Your task to perform on an android device: move an email to a new category in the gmail app Image 0: 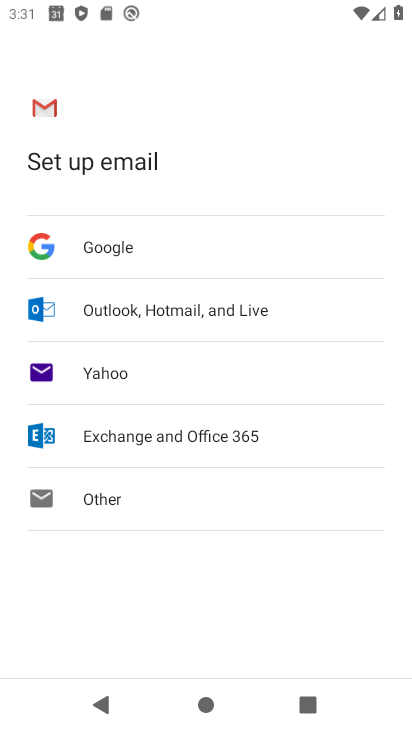
Step 0: press back button
Your task to perform on an android device: move an email to a new category in the gmail app Image 1: 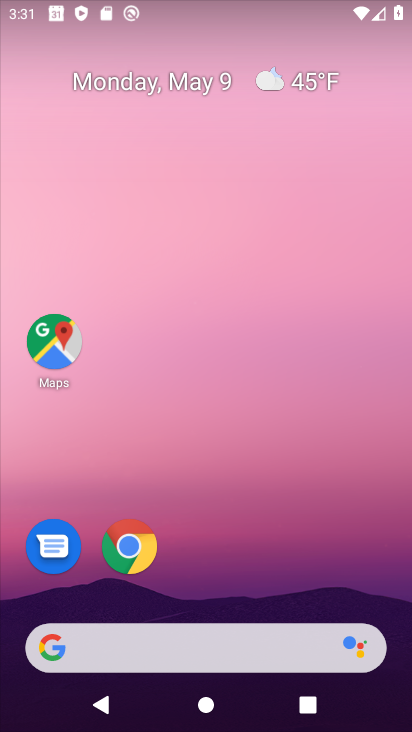
Step 1: drag from (259, 606) to (319, 214)
Your task to perform on an android device: move an email to a new category in the gmail app Image 2: 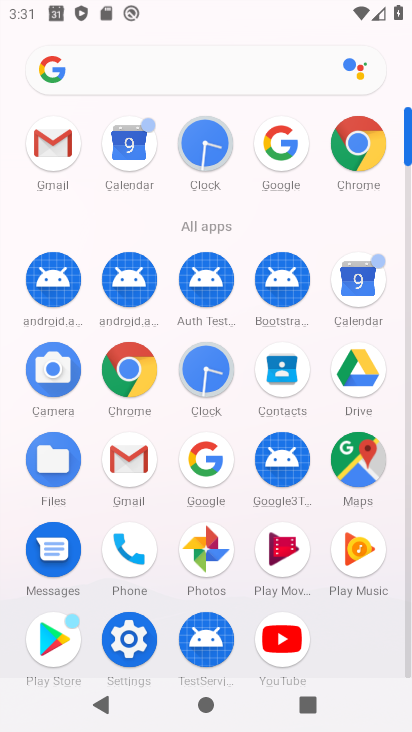
Step 2: click (136, 463)
Your task to perform on an android device: move an email to a new category in the gmail app Image 3: 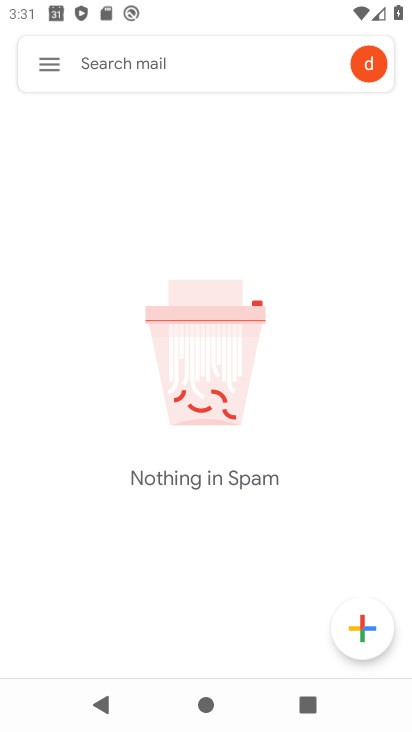
Step 3: click (54, 77)
Your task to perform on an android device: move an email to a new category in the gmail app Image 4: 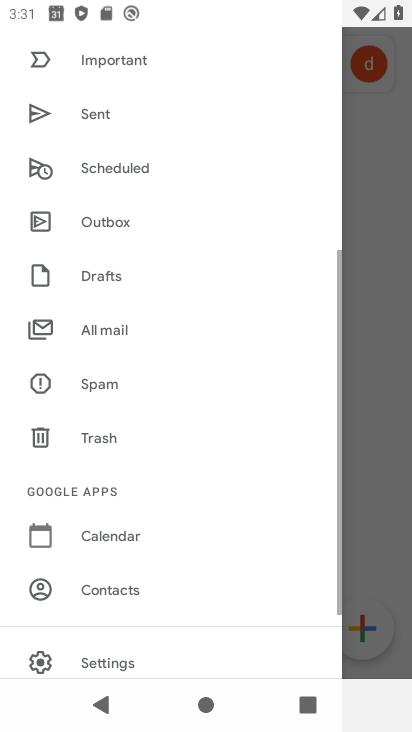
Step 4: click (109, 327)
Your task to perform on an android device: move an email to a new category in the gmail app Image 5: 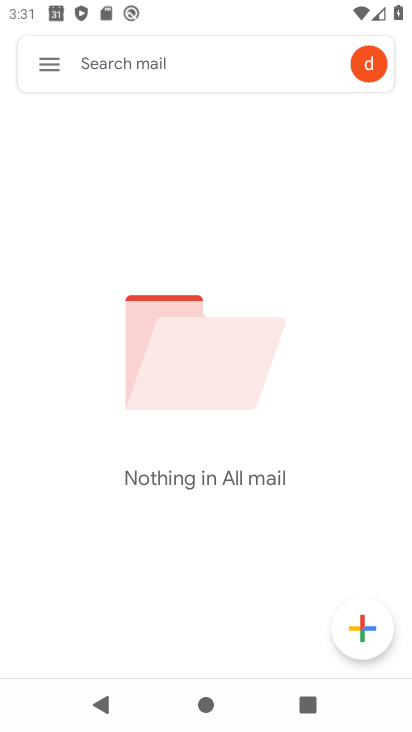
Step 5: task complete